Your task to perform on an android device: uninstall "Google Sheets" Image 0: 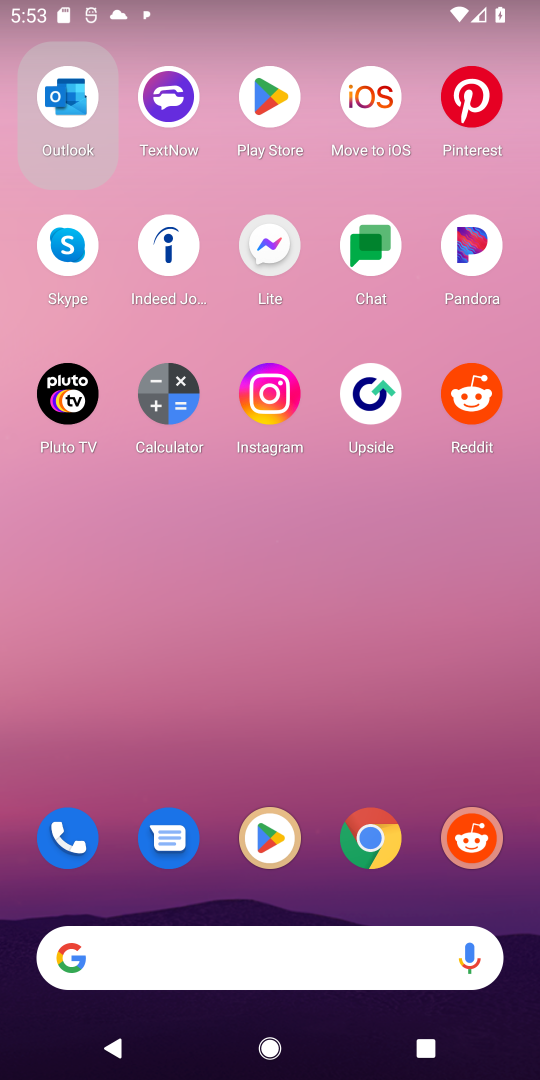
Step 0: click (278, 846)
Your task to perform on an android device: uninstall "Google Sheets" Image 1: 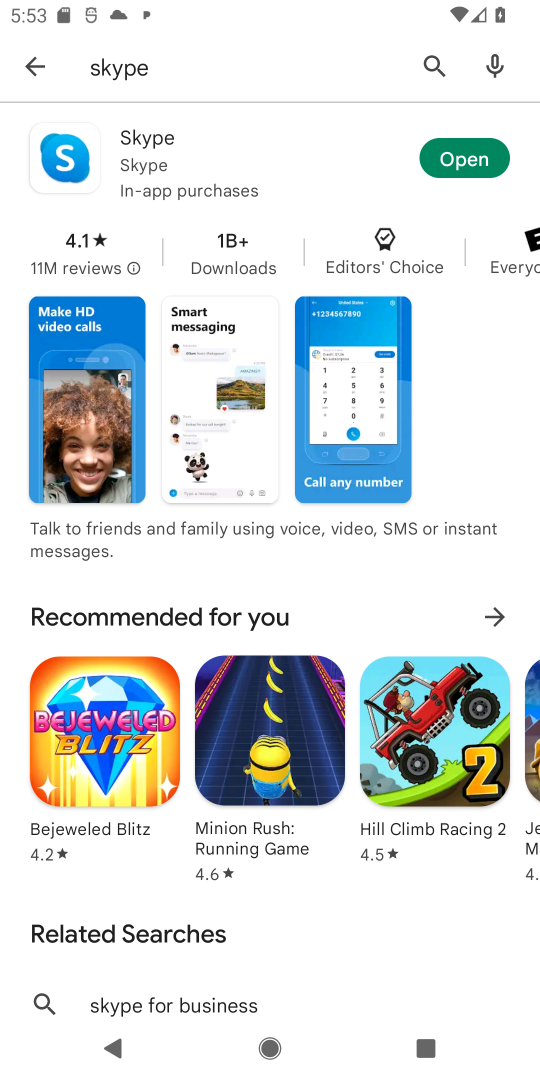
Step 1: click (438, 56)
Your task to perform on an android device: uninstall "Google Sheets" Image 2: 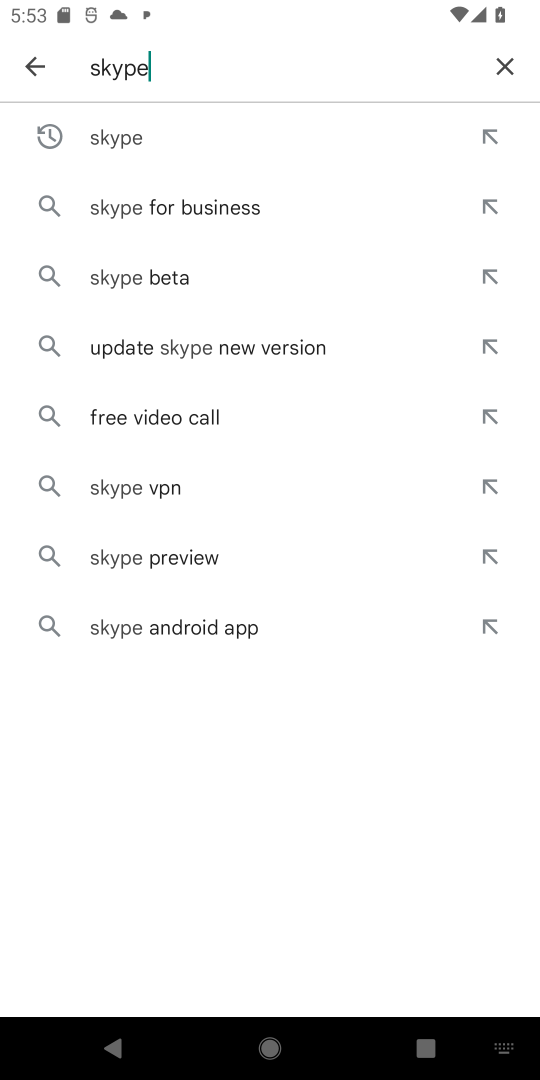
Step 2: click (507, 59)
Your task to perform on an android device: uninstall "Google Sheets" Image 3: 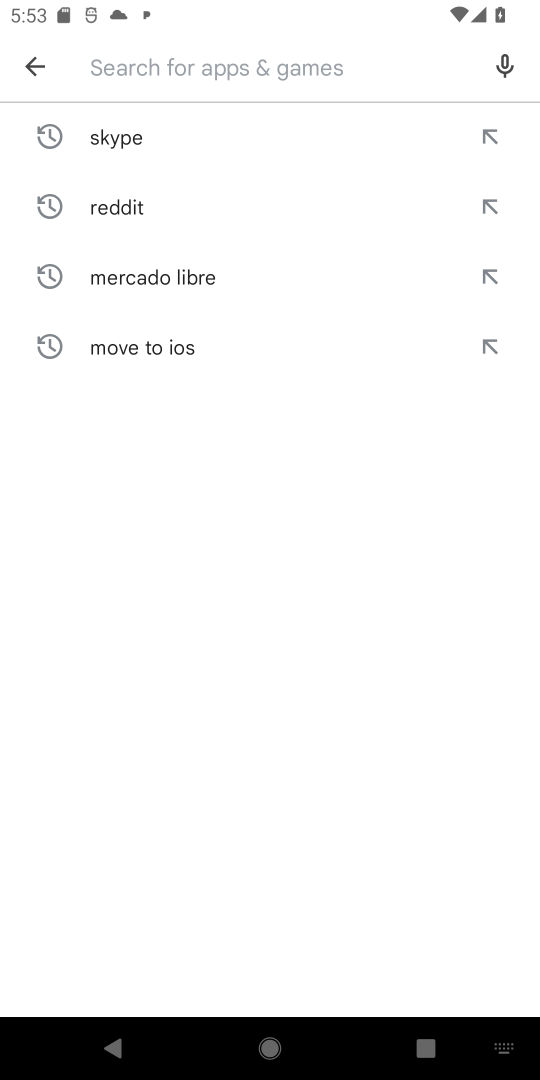
Step 3: type "Google Sheets"
Your task to perform on an android device: uninstall "Google Sheets" Image 4: 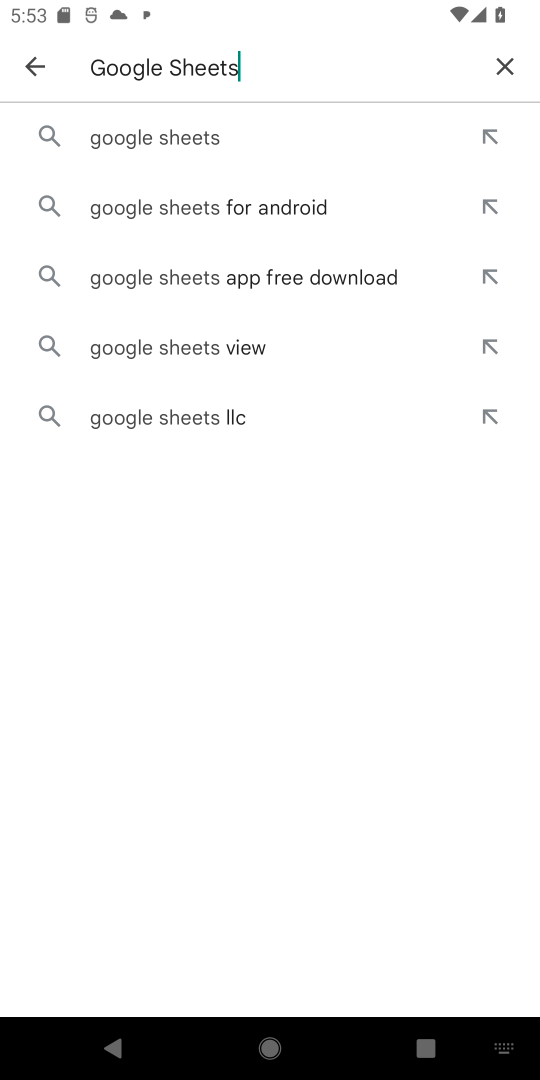
Step 4: click (178, 140)
Your task to perform on an android device: uninstall "Google Sheets" Image 5: 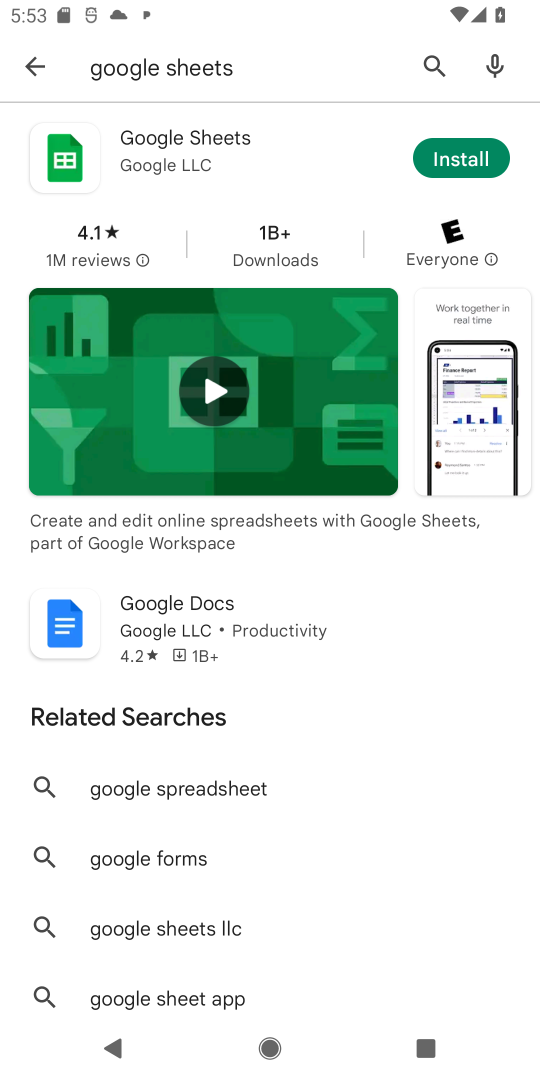
Step 5: click (186, 145)
Your task to perform on an android device: uninstall "Google Sheets" Image 6: 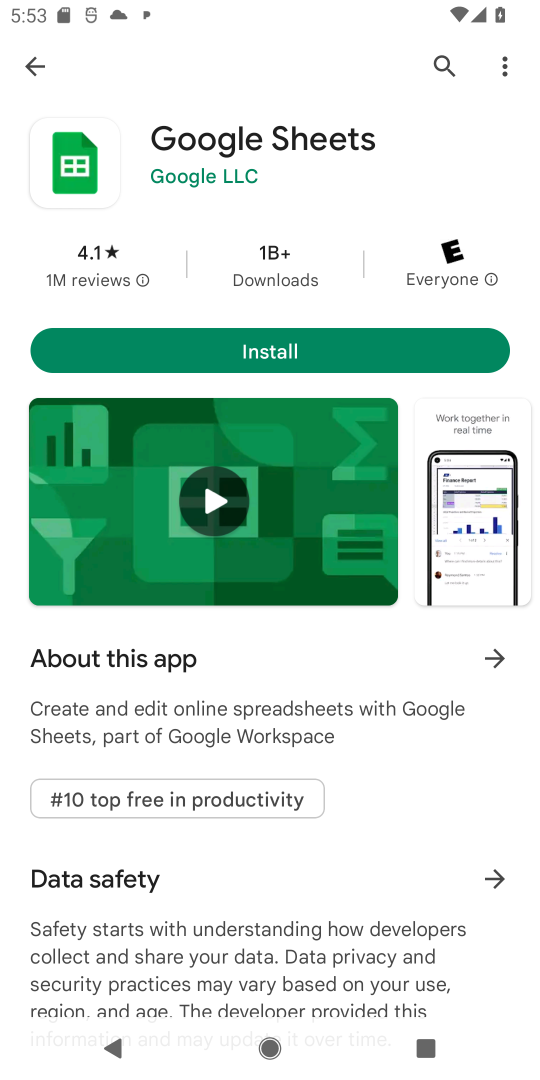
Step 6: task complete